Your task to perform on an android device: Open Google Chrome and click the shortcut for Amazon.com Image 0: 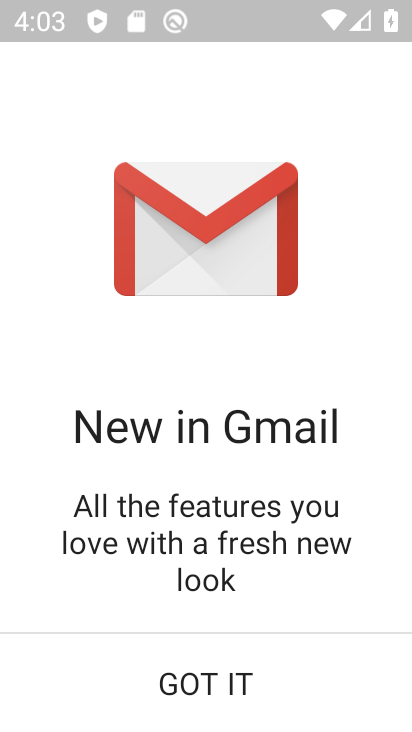
Step 0: press back button
Your task to perform on an android device: Open Google Chrome and click the shortcut for Amazon.com Image 1: 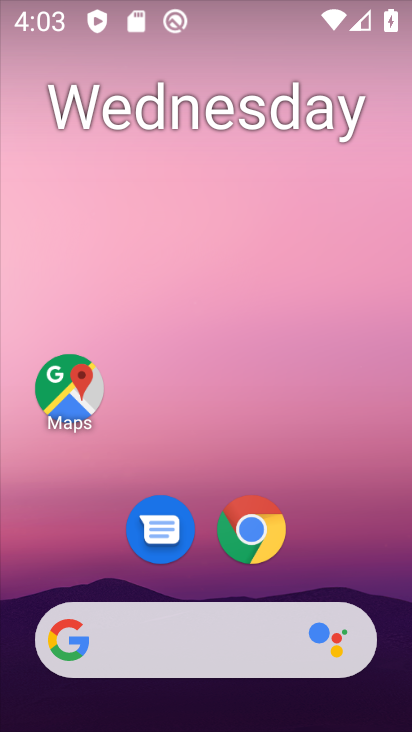
Step 1: click (247, 530)
Your task to perform on an android device: Open Google Chrome and click the shortcut for Amazon.com Image 2: 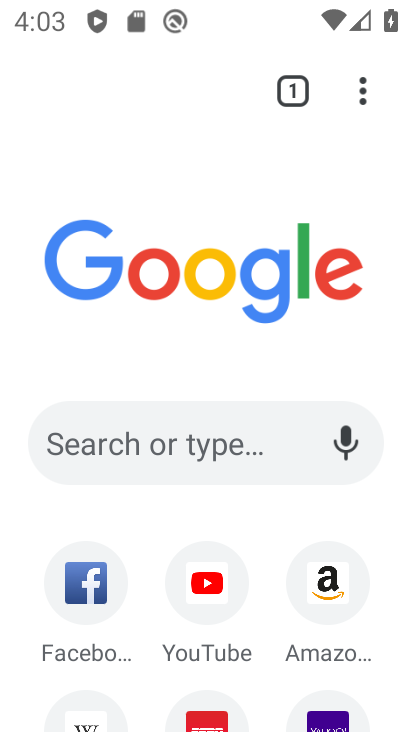
Step 2: click (333, 564)
Your task to perform on an android device: Open Google Chrome and click the shortcut for Amazon.com Image 3: 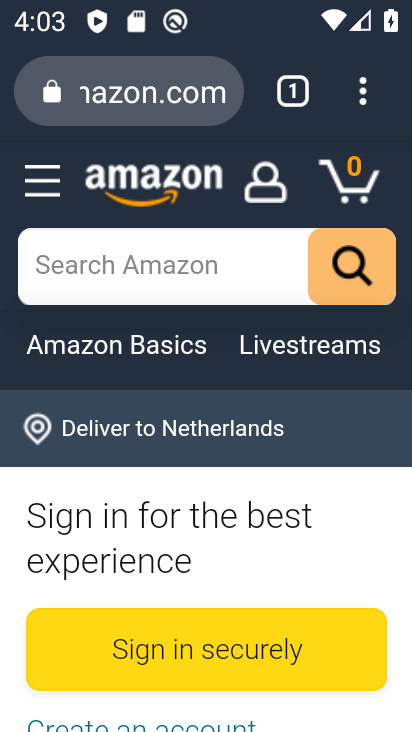
Step 3: task complete